Your task to perform on an android device: open a new tab in the chrome app Image 0: 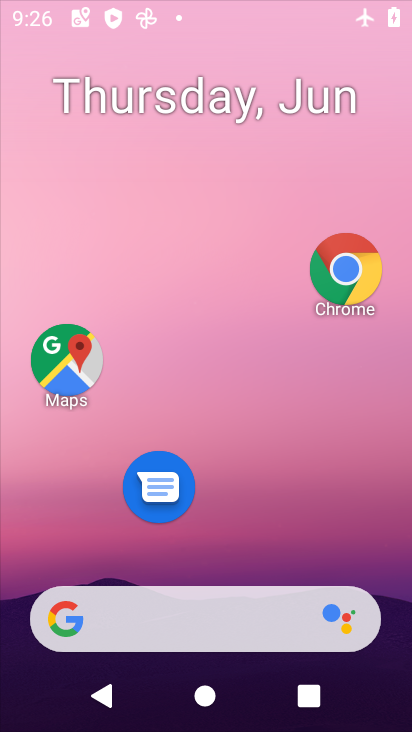
Step 0: click (235, 281)
Your task to perform on an android device: open a new tab in the chrome app Image 1: 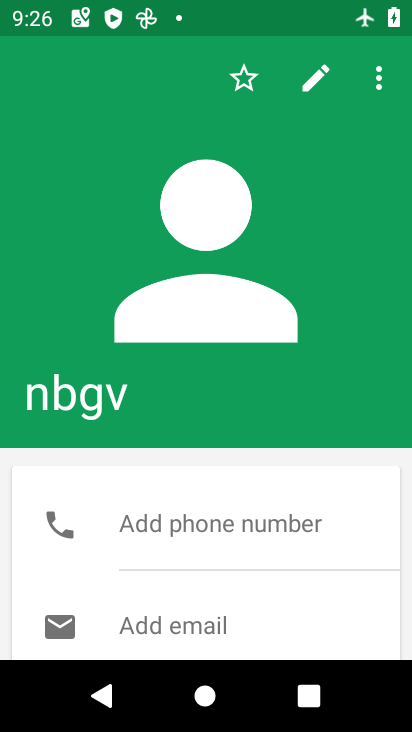
Step 1: press home button
Your task to perform on an android device: open a new tab in the chrome app Image 2: 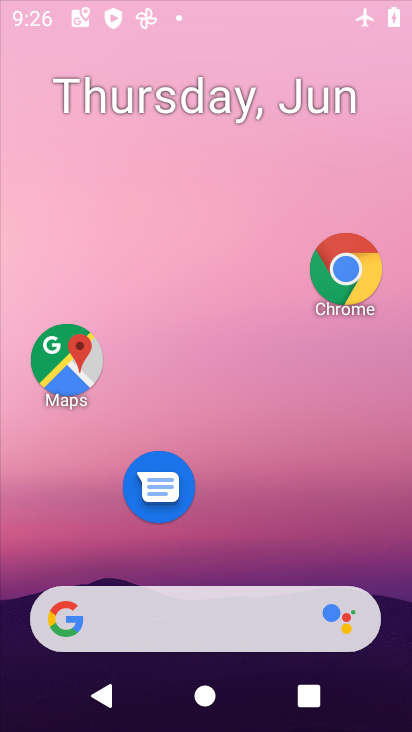
Step 2: drag from (212, 577) to (230, 136)
Your task to perform on an android device: open a new tab in the chrome app Image 3: 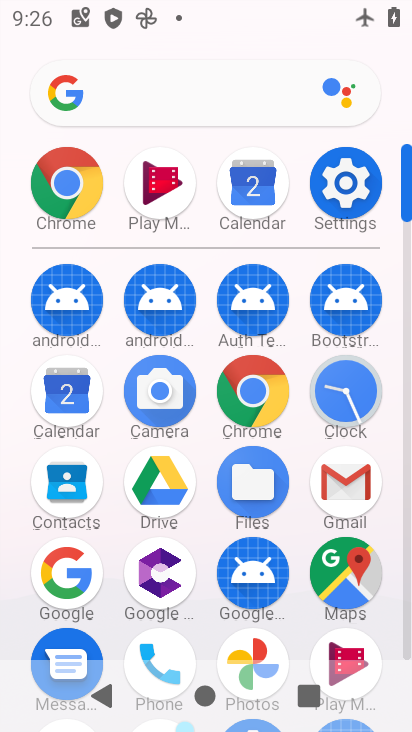
Step 3: click (246, 384)
Your task to perform on an android device: open a new tab in the chrome app Image 4: 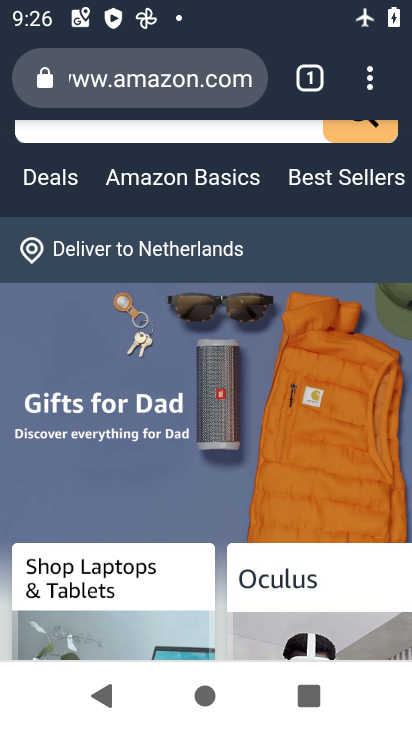
Step 4: task complete